Your task to perform on an android device: Clear the cart on walmart. Search for "macbook pro" on walmart, select the first entry, and add it to the cart. Image 0: 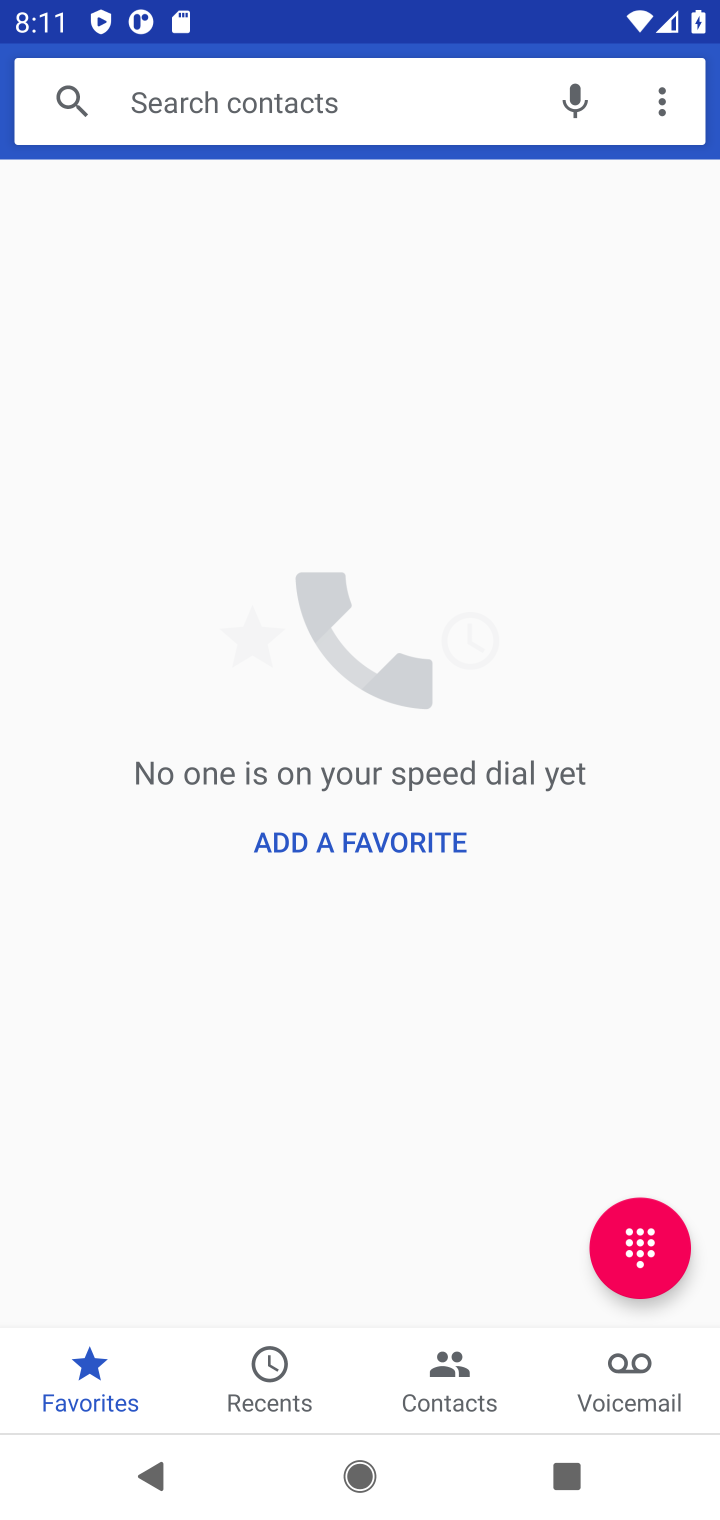
Step 0: press home button
Your task to perform on an android device: Clear the cart on walmart. Search for "macbook pro" on walmart, select the first entry, and add it to the cart. Image 1: 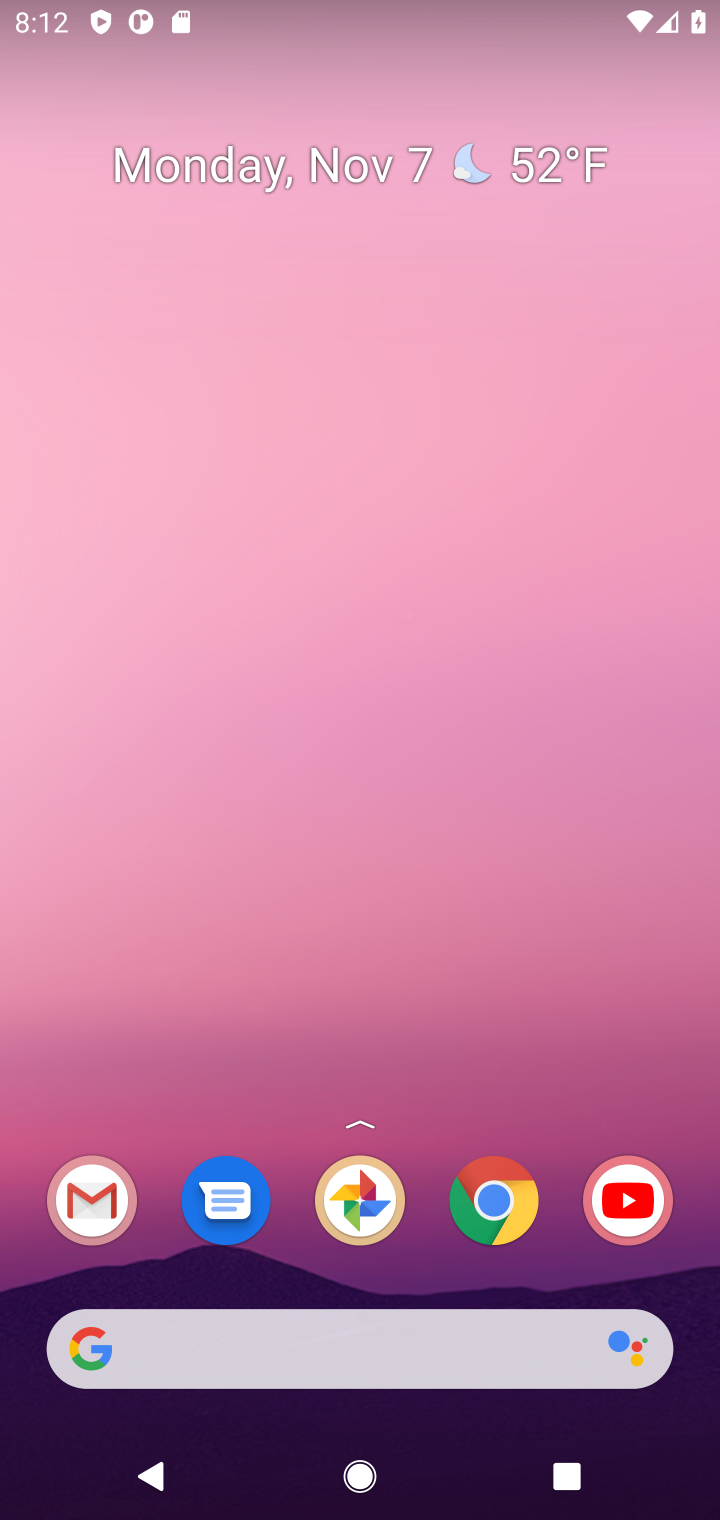
Step 1: click (500, 1210)
Your task to perform on an android device: Clear the cart on walmart. Search for "macbook pro" on walmart, select the first entry, and add it to the cart. Image 2: 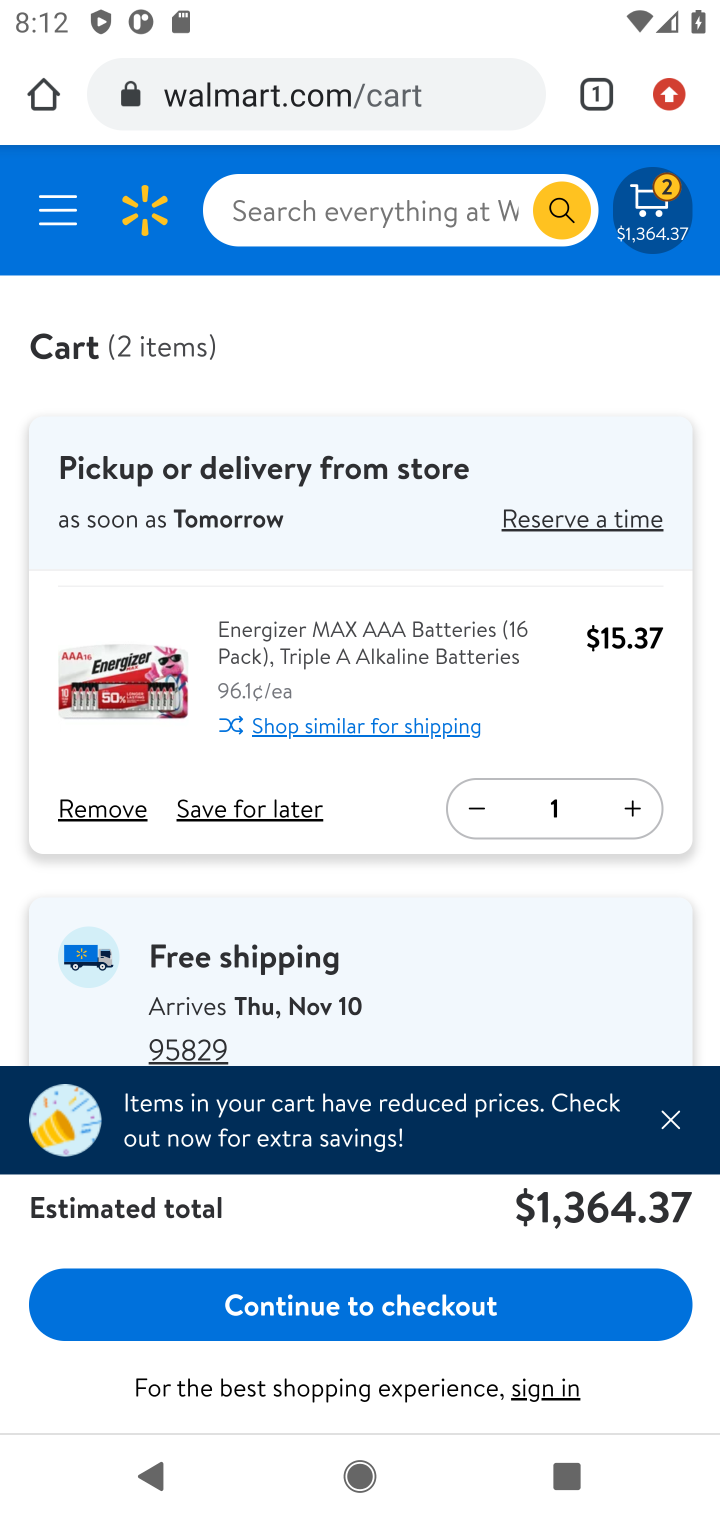
Step 2: click (289, 106)
Your task to perform on an android device: Clear the cart on walmart. Search for "macbook pro" on walmart, select the first entry, and add it to the cart. Image 3: 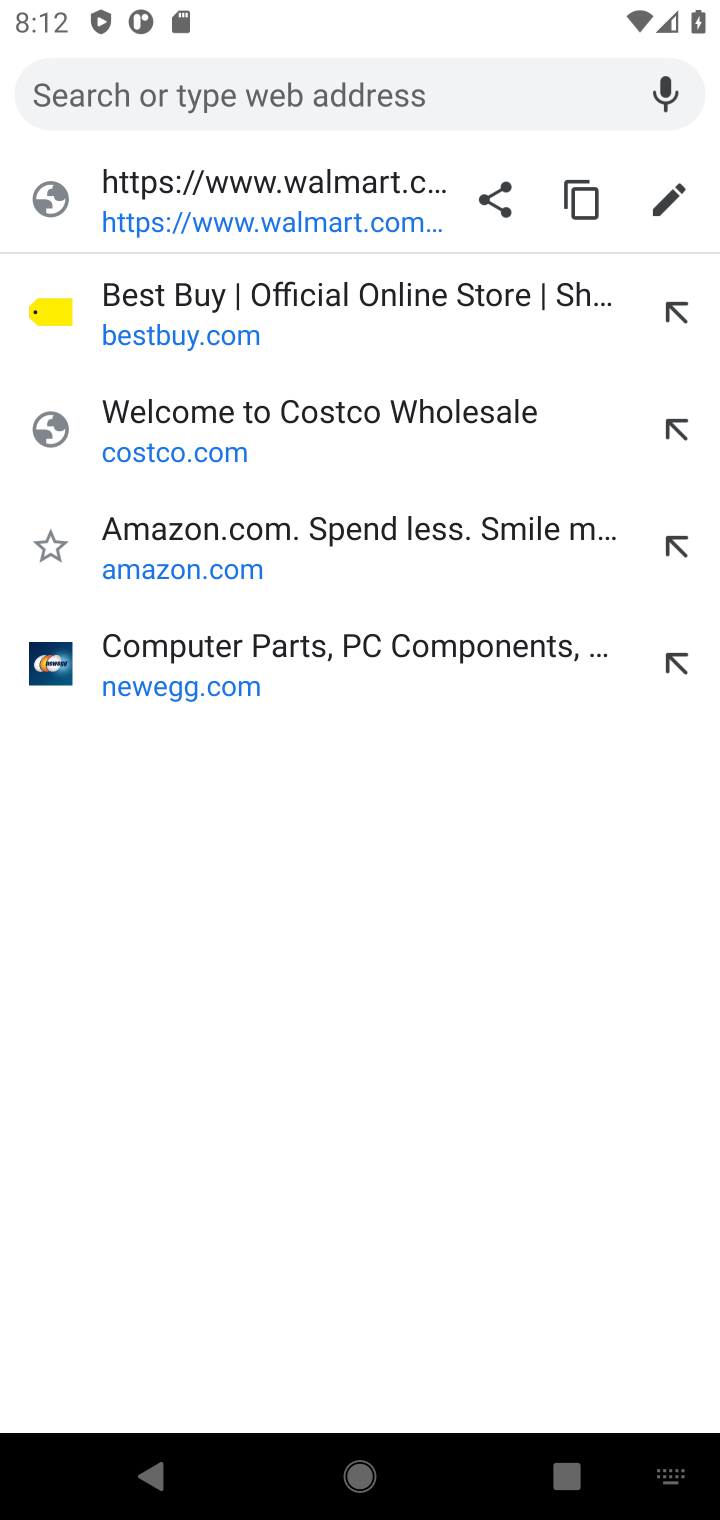
Step 3: type "walmart"
Your task to perform on an android device: Clear the cart on walmart. Search for "macbook pro" on walmart, select the first entry, and add it to the cart. Image 4: 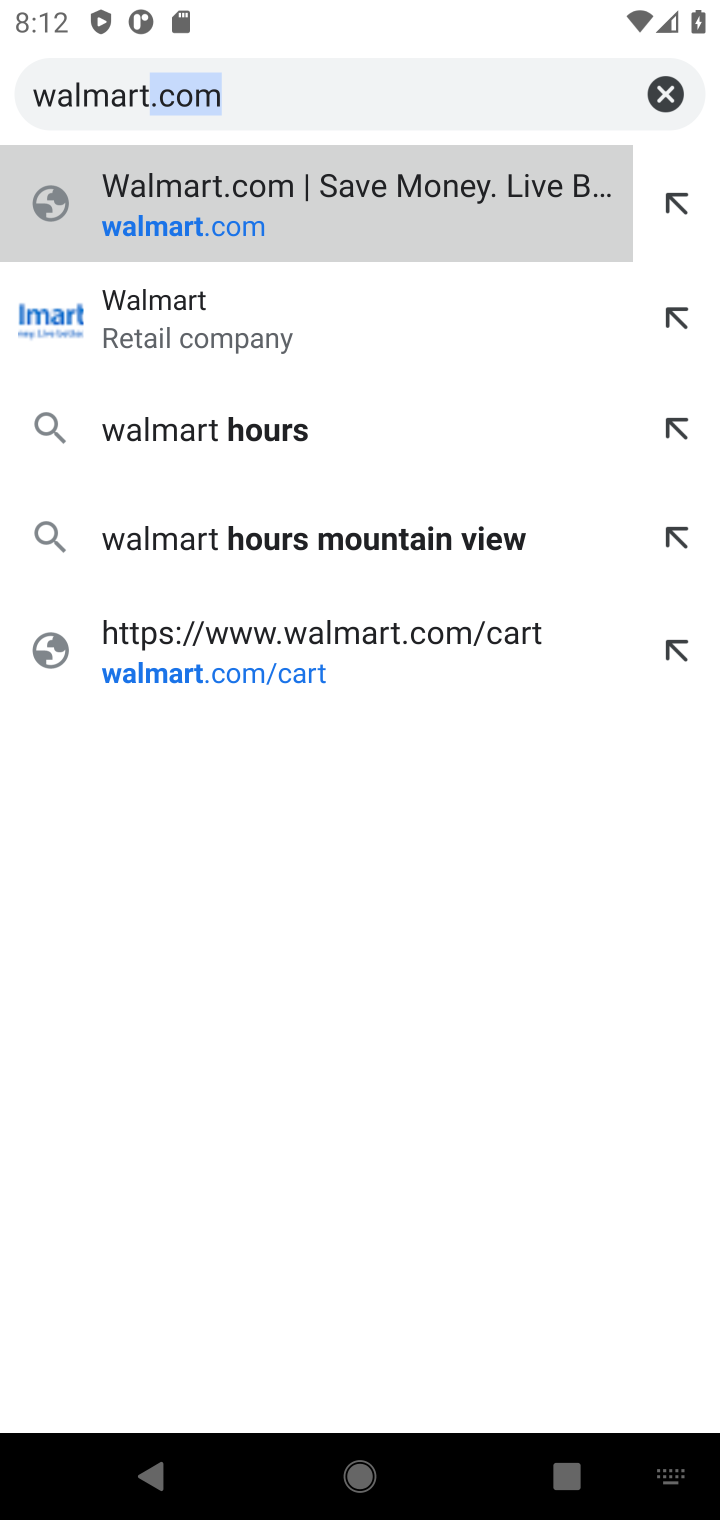
Step 4: press enter
Your task to perform on an android device: Clear the cart on walmart. Search for "macbook pro" on walmart, select the first entry, and add it to the cart. Image 5: 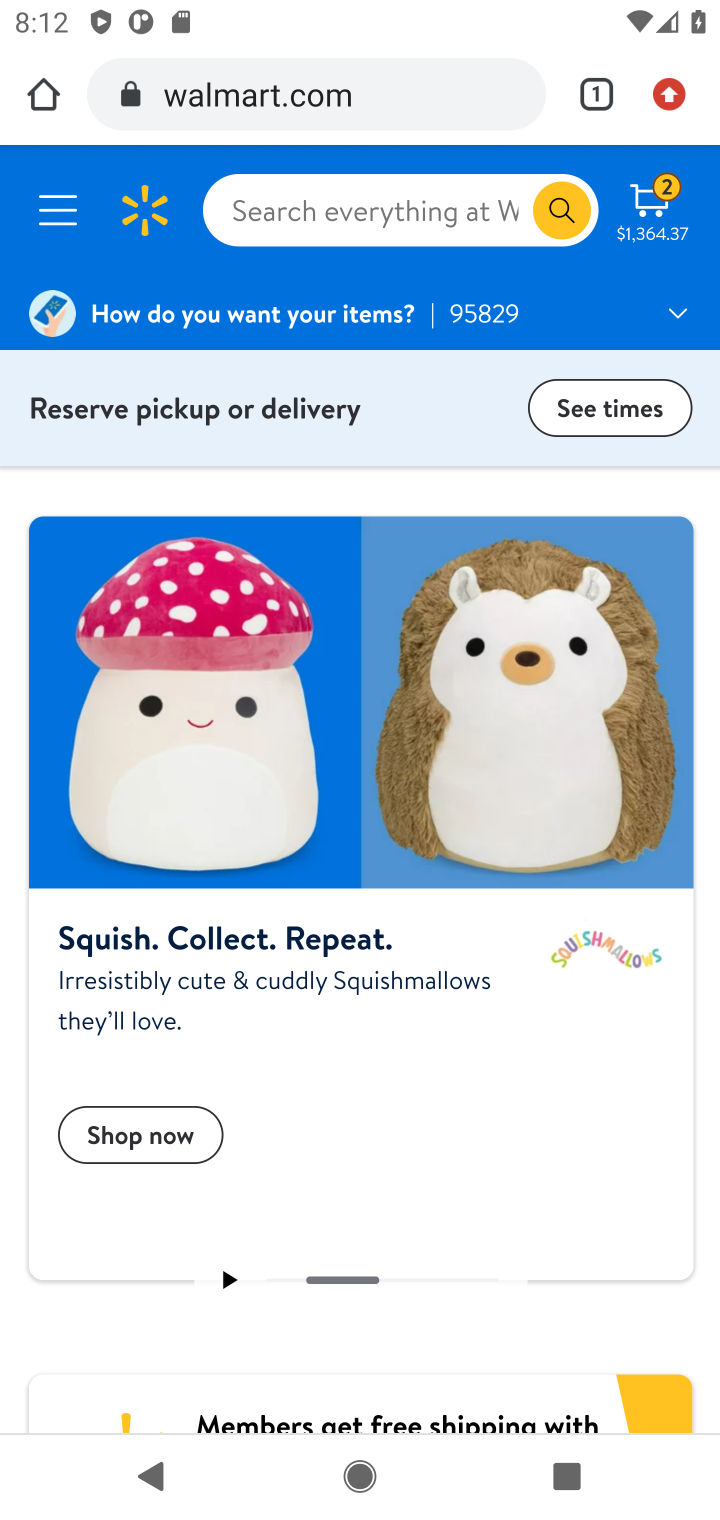
Step 5: click (245, 220)
Your task to perform on an android device: Clear the cart on walmart. Search for "macbook pro" on walmart, select the first entry, and add it to the cart. Image 6: 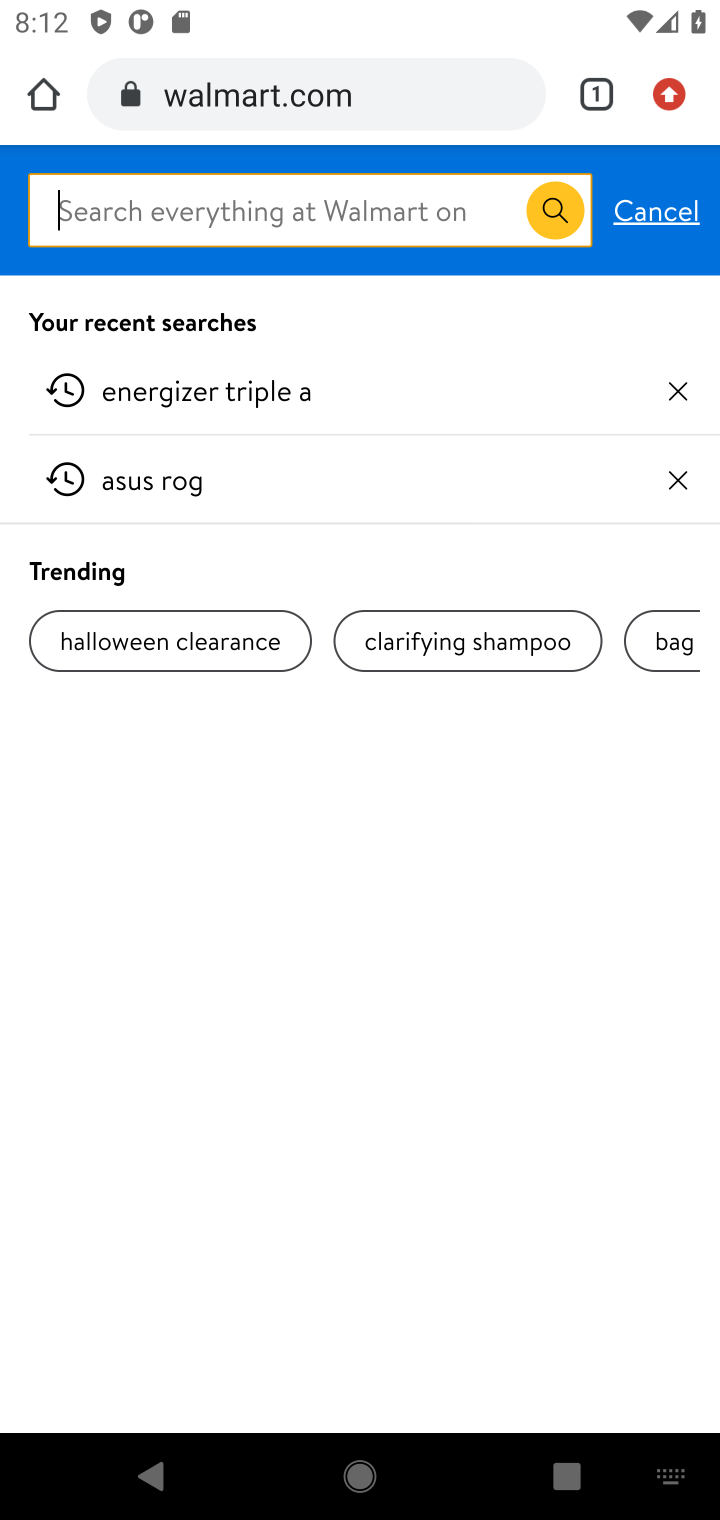
Step 6: type "macbook pro"
Your task to perform on an android device: Clear the cart on walmart. Search for "macbook pro" on walmart, select the first entry, and add it to the cart. Image 7: 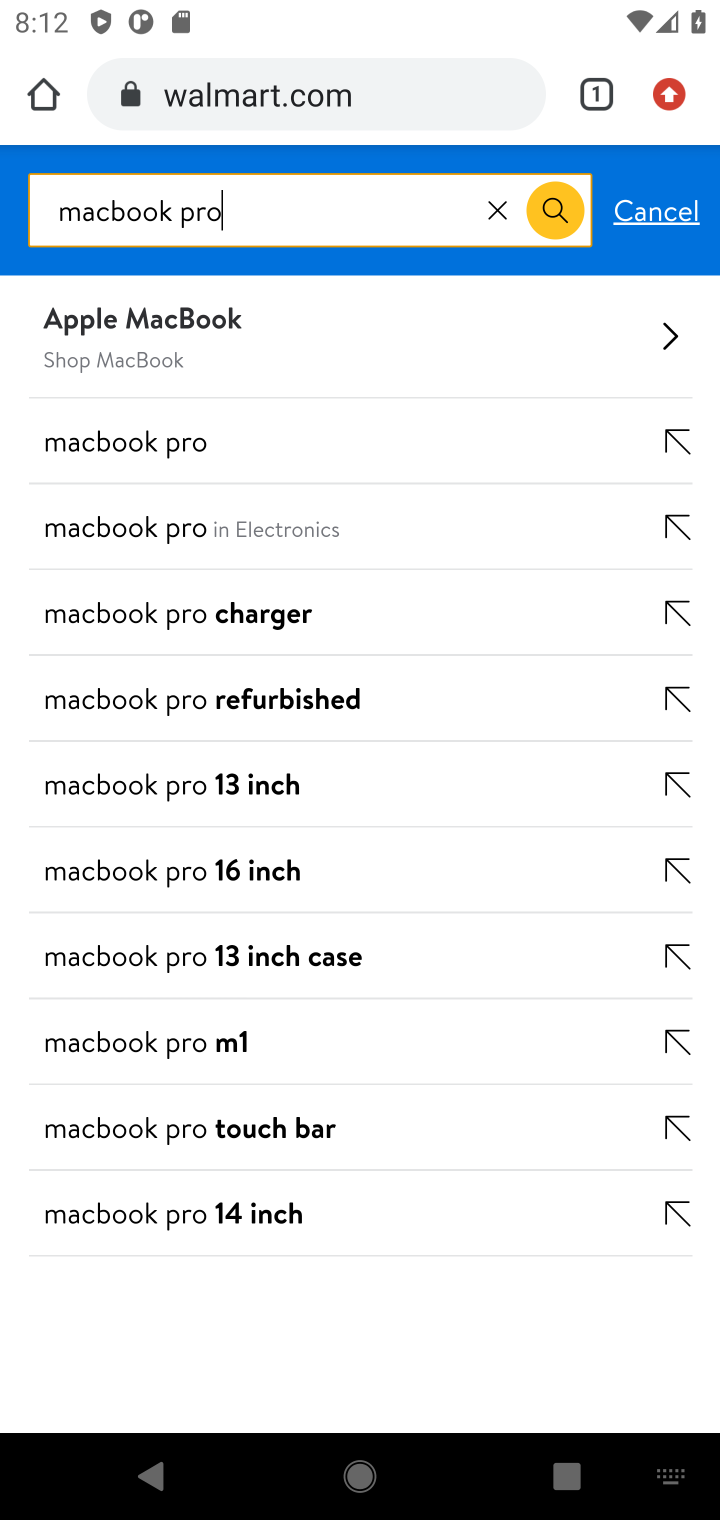
Step 7: press enter
Your task to perform on an android device: Clear the cart on walmart. Search for "macbook pro" on walmart, select the first entry, and add it to the cart. Image 8: 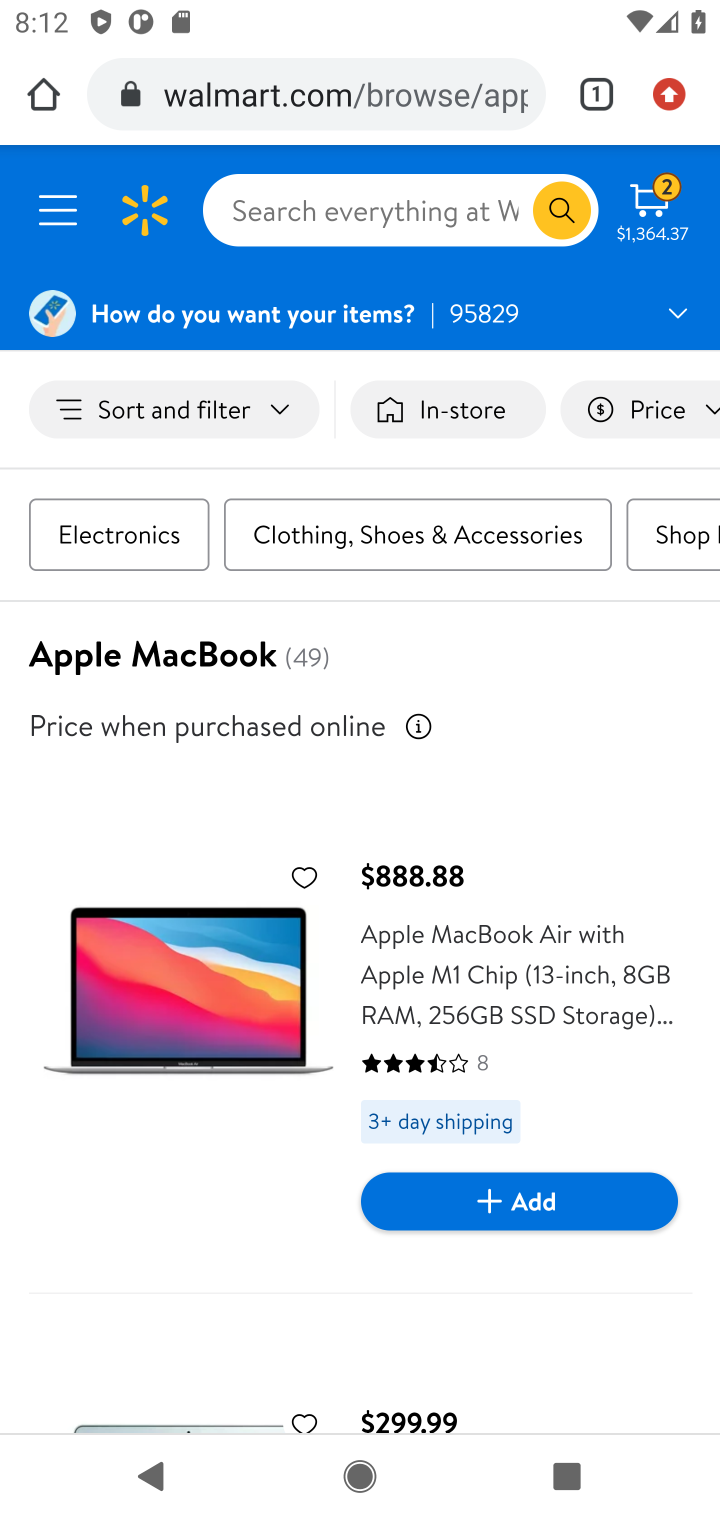
Step 8: click (562, 1208)
Your task to perform on an android device: Clear the cart on walmart. Search for "macbook pro" on walmart, select the first entry, and add it to the cart. Image 9: 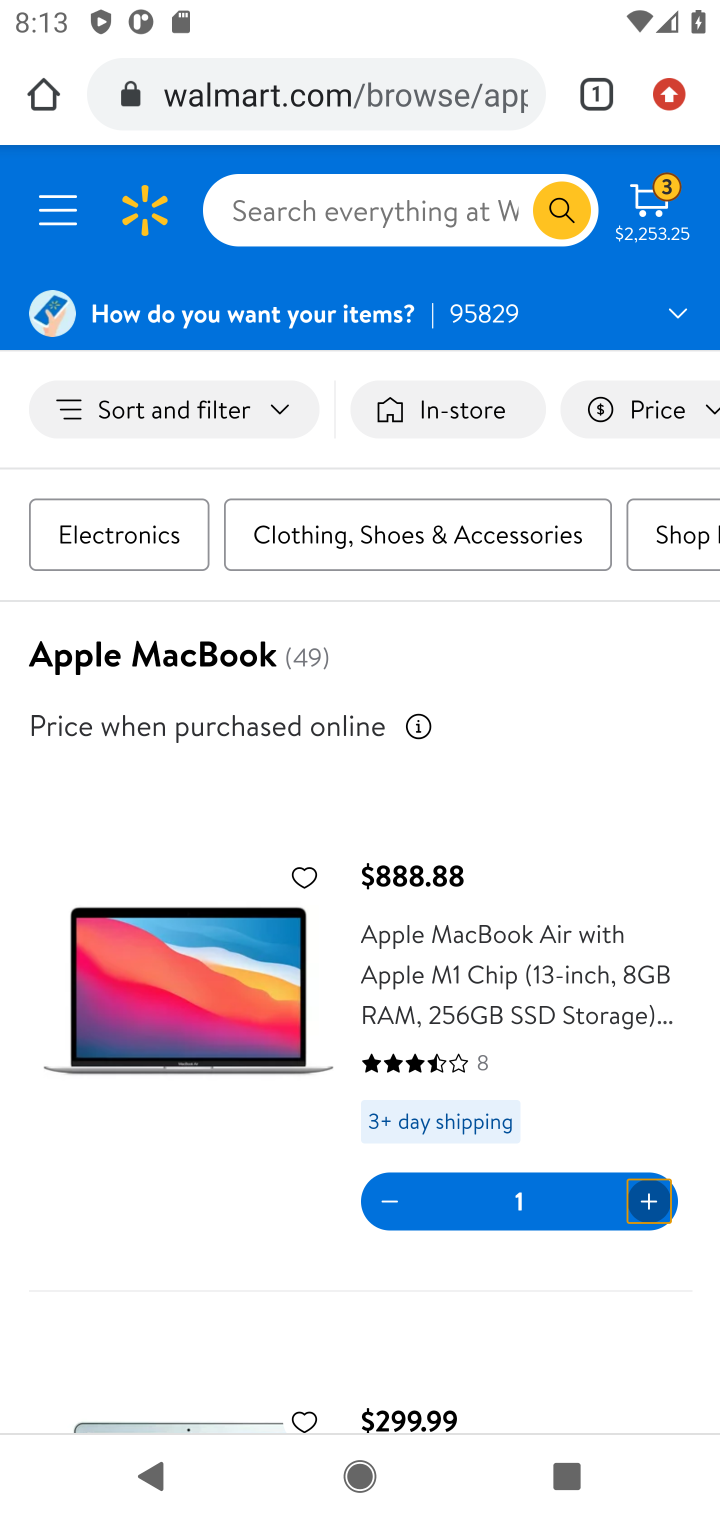
Step 9: task complete